Your task to perform on an android device: Show me recent news Image 0: 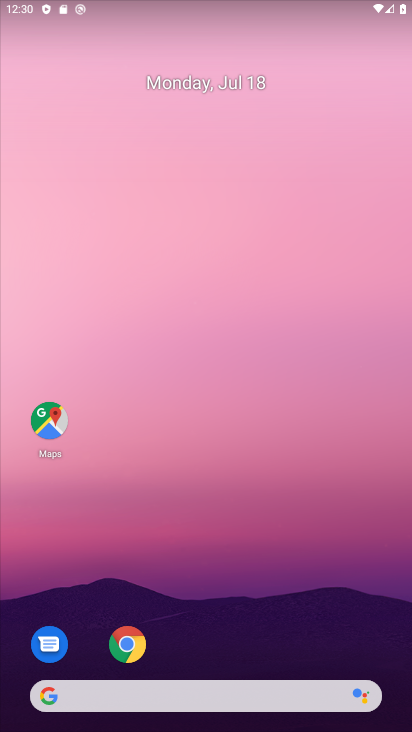
Step 0: press home button
Your task to perform on an android device: Show me recent news Image 1: 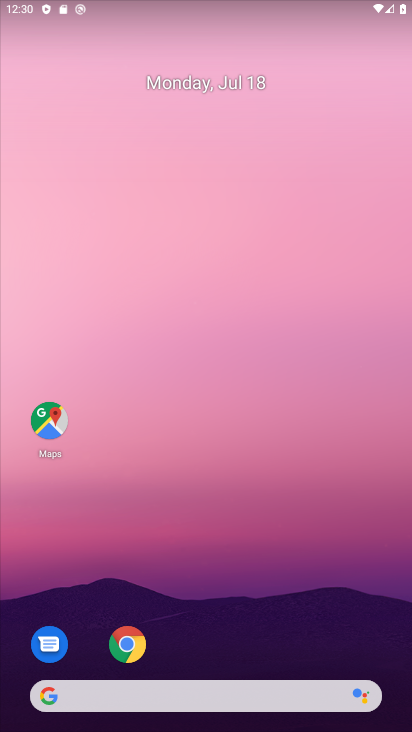
Step 1: task complete